Your task to perform on an android device: visit the assistant section in the google photos Image 0: 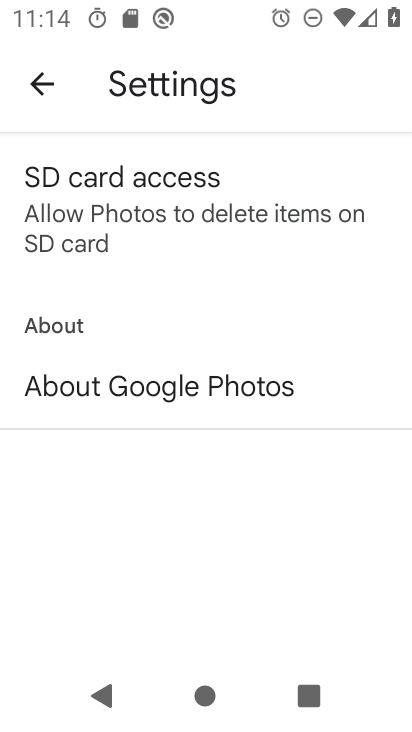
Step 0: press home button
Your task to perform on an android device: visit the assistant section in the google photos Image 1: 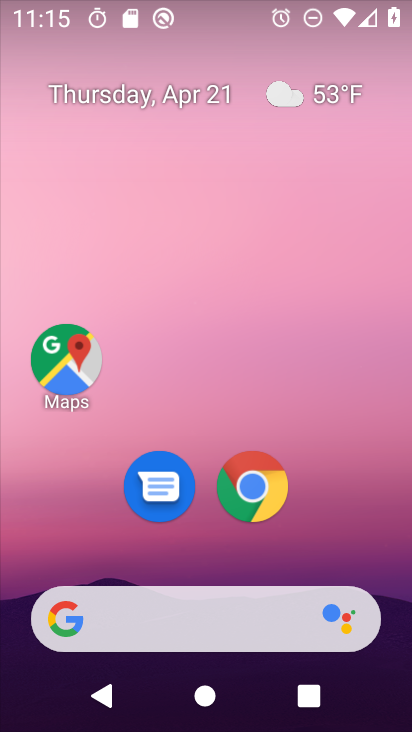
Step 1: click (396, 224)
Your task to perform on an android device: visit the assistant section in the google photos Image 2: 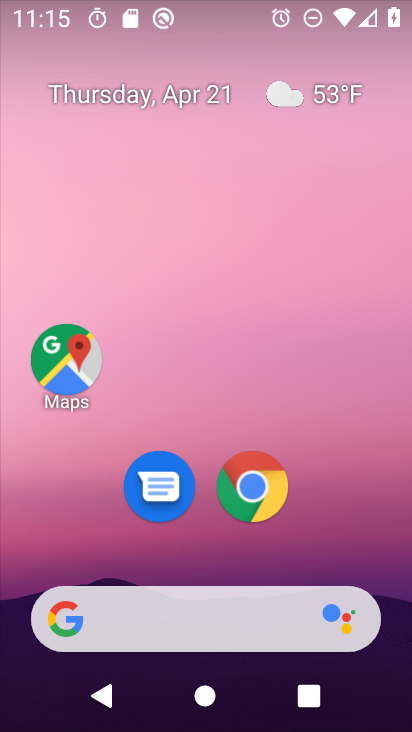
Step 2: drag from (385, 362) to (348, 60)
Your task to perform on an android device: visit the assistant section in the google photos Image 3: 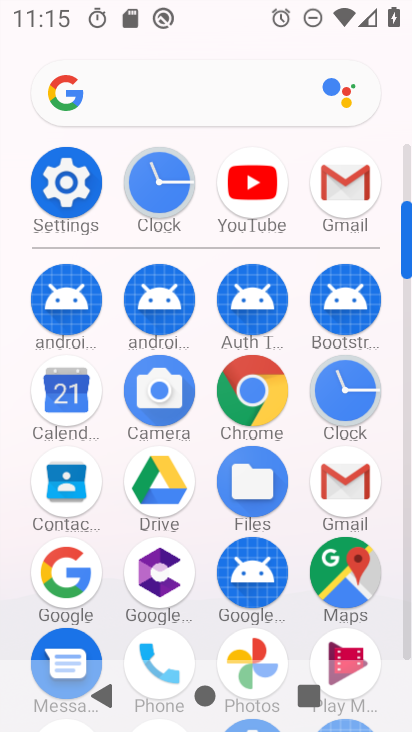
Step 3: click (249, 639)
Your task to perform on an android device: visit the assistant section in the google photos Image 4: 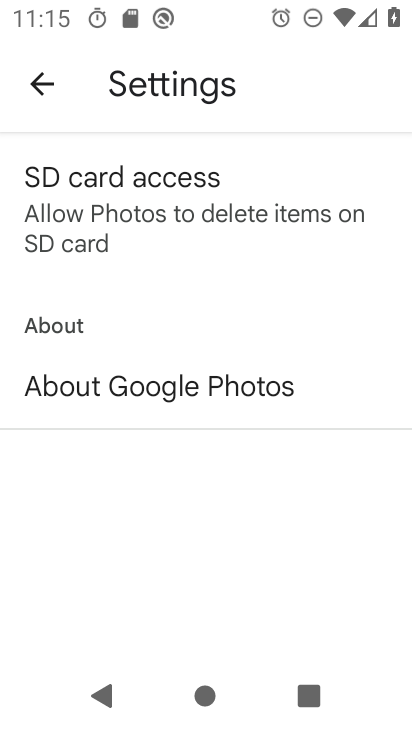
Step 4: click (42, 92)
Your task to perform on an android device: visit the assistant section in the google photos Image 5: 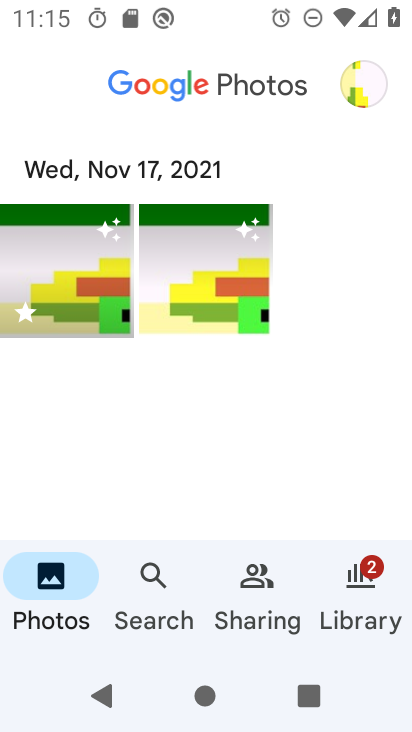
Step 5: task complete